Your task to perform on an android device: Open ESPN.com Image 0: 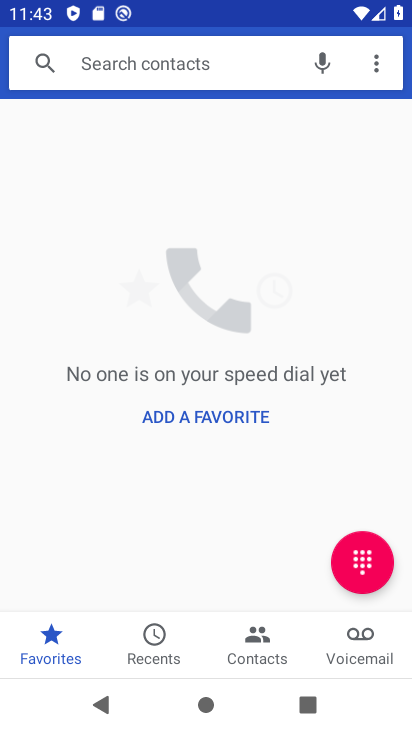
Step 0: press home button
Your task to perform on an android device: Open ESPN.com Image 1: 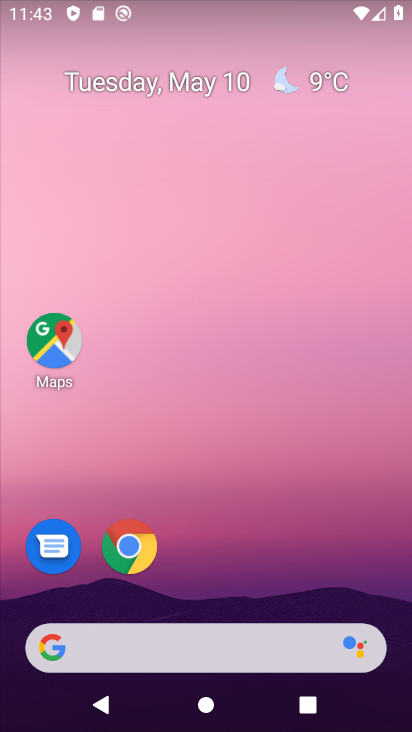
Step 1: click (137, 551)
Your task to perform on an android device: Open ESPN.com Image 2: 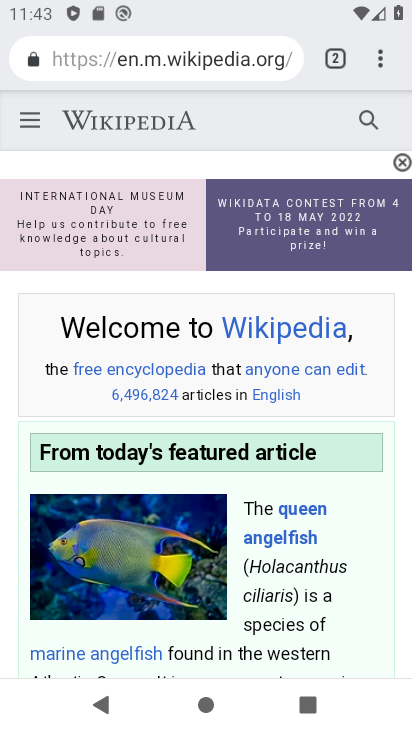
Step 2: drag from (198, 39) to (185, 107)
Your task to perform on an android device: Open ESPN.com Image 3: 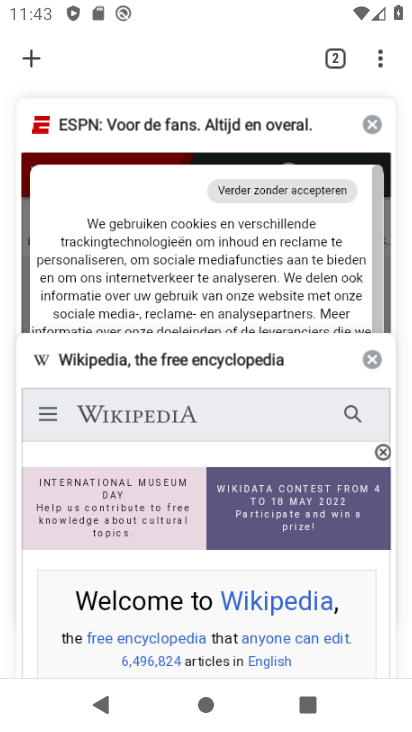
Step 3: click (120, 132)
Your task to perform on an android device: Open ESPN.com Image 4: 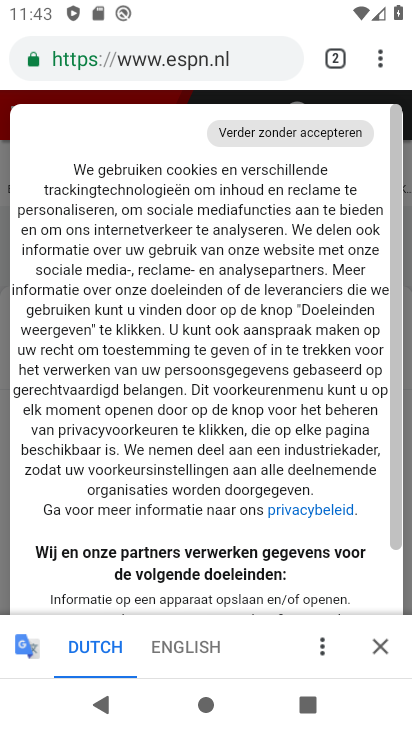
Step 4: task complete